Your task to perform on an android device: Search for sushi restaurants on Maps Image 0: 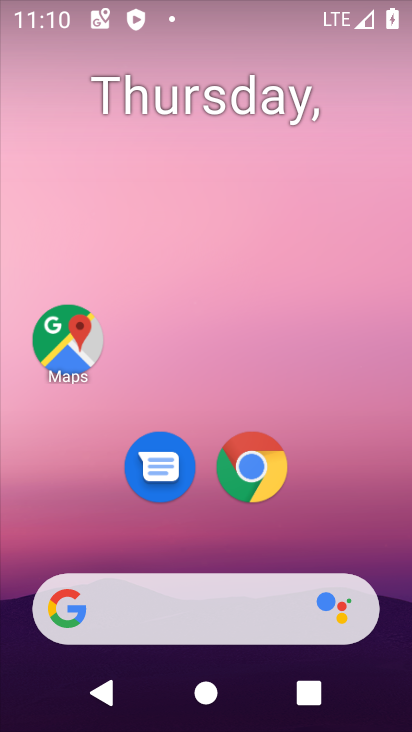
Step 0: click (86, 339)
Your task to perform on an android device: Search for sushi restaurants on Maps Image 1: 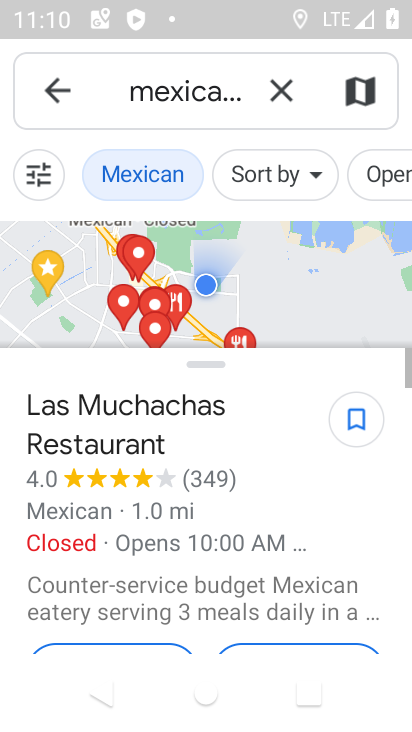
Step 1: click (279, 91)
Your task to perform on an android device: Search for sushi restaurants on Maps Image 2: 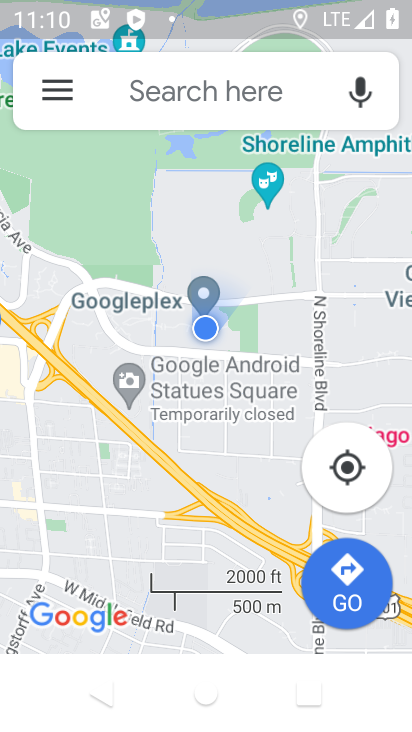
Step 2: click (174, 82)
Your task to perform on an android device: Search for sushi restaurants on Maps Image 3: 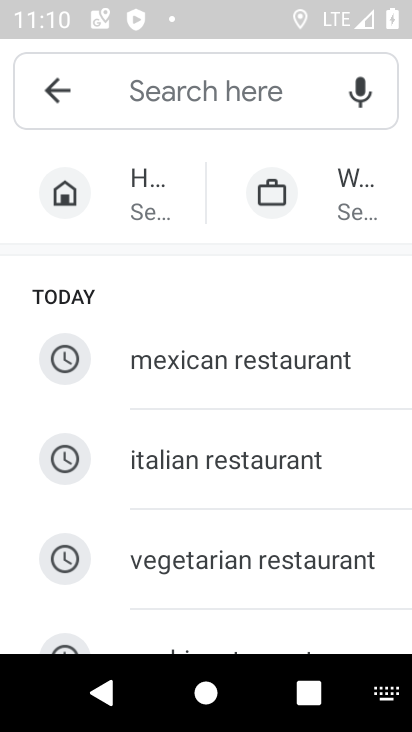
Step 3: drag from (220, 557) to (278, 194)
Your task to perform on an android device: Search for sushi restaurants on Maps Image 4: 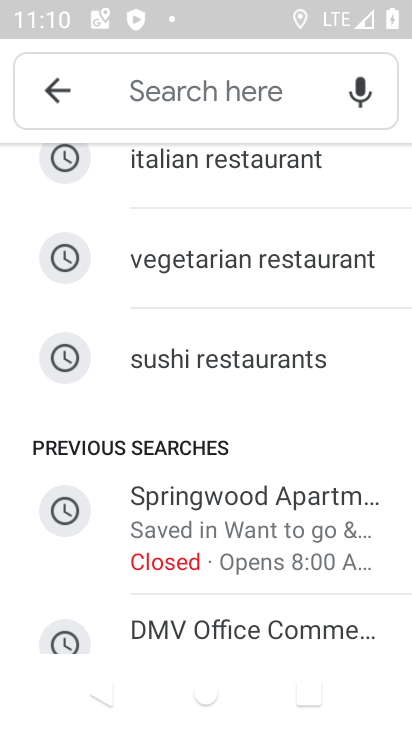
Step 4: click (232, 353)
Your task to perform on an android device: Search for sushi restaurants on Maps Image 5: 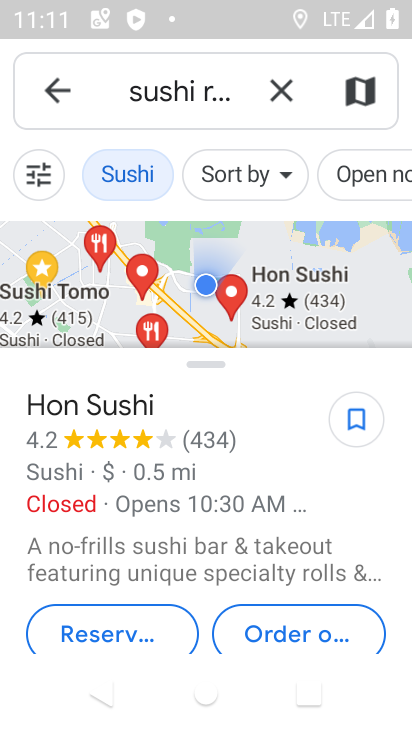
Step 5: task complete